Your task to perform on an android device: change the clock display to show seconds Image 0: 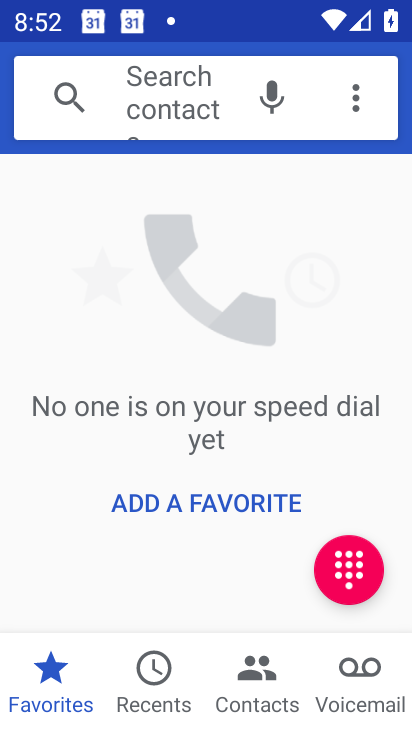
Step 0: press home button
Your task to perform on an android device: change the clock display to show seconds Image 1: 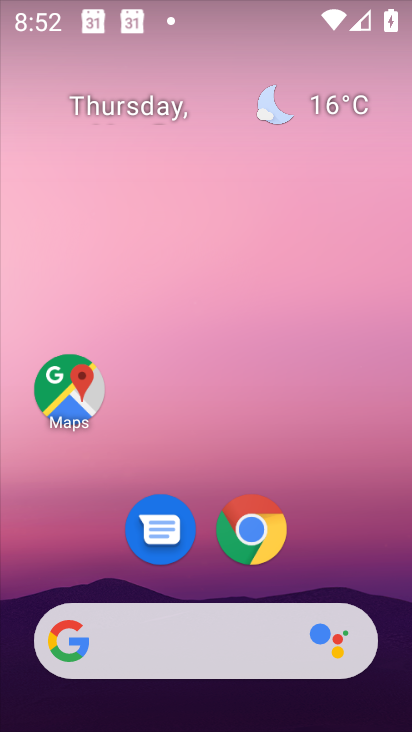
Step 1: drag from (325, 510) to (246, 19)
Your task to perform on an android device: change the clock display to show seconds Image 2: 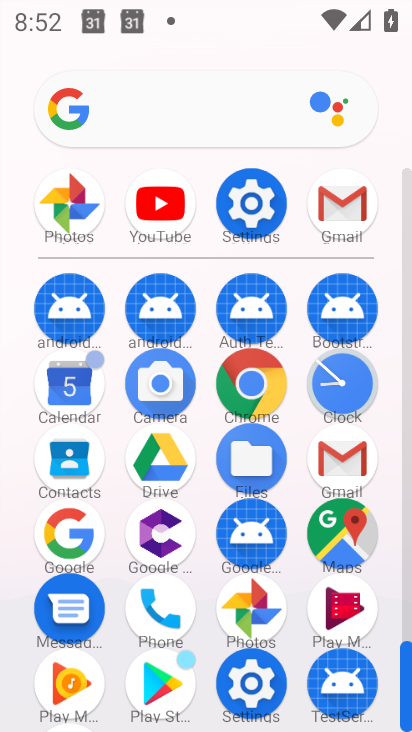
Step 2: click (346, 380)
Your task to perform on an android device: change the clock display to show seconds Image 3: 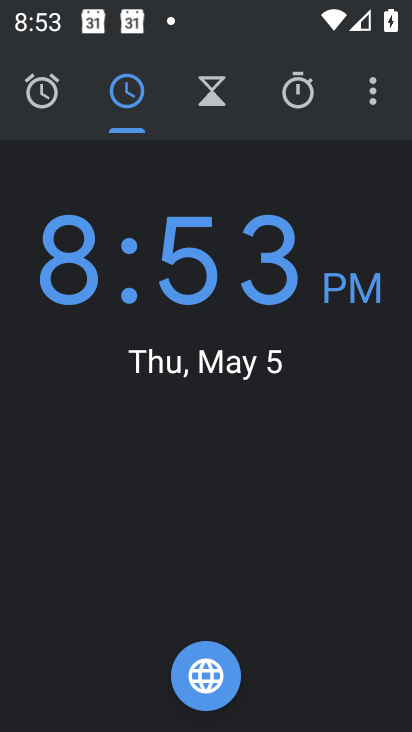
Step 3: click (372, 87)
Your task to perform on an android device: change the clock display to show seconds Image 4: 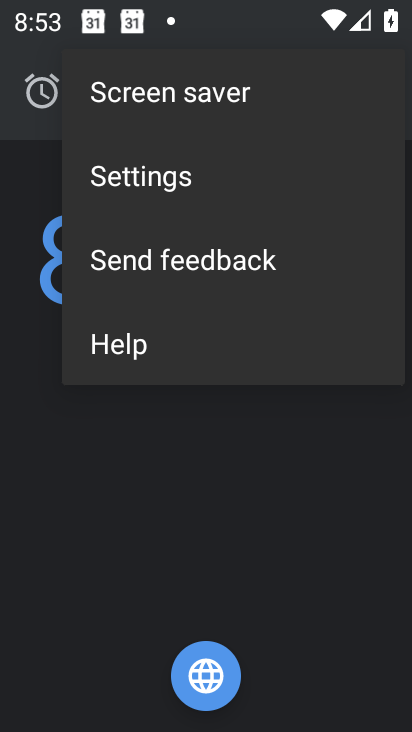
Step 4: click (173, 176)
Your task to perform on an android device: change the clock display to show seconds Image 5: 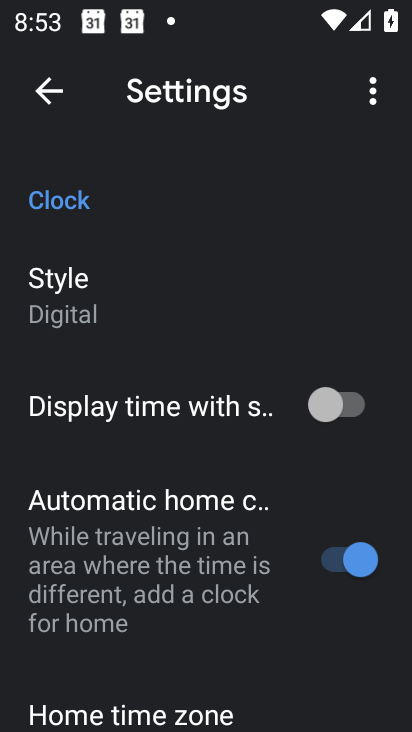
Step 5: click (326, 400)
Your task to perform on an android device: change the clock display to show seconds Image 6: 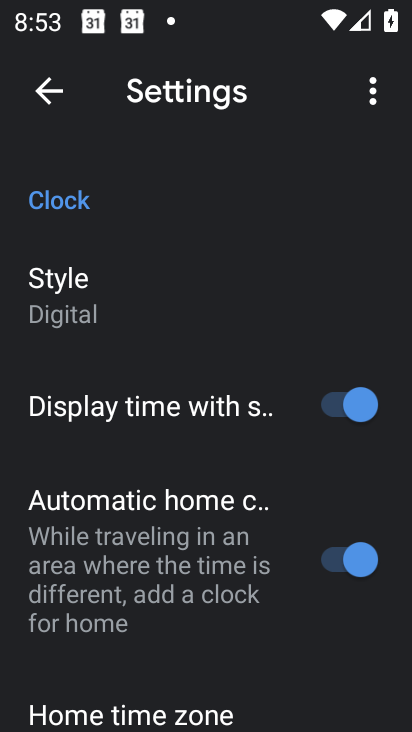
Step 6: task complete